Your task to perform on an android device: Go to Android settings Image 0: 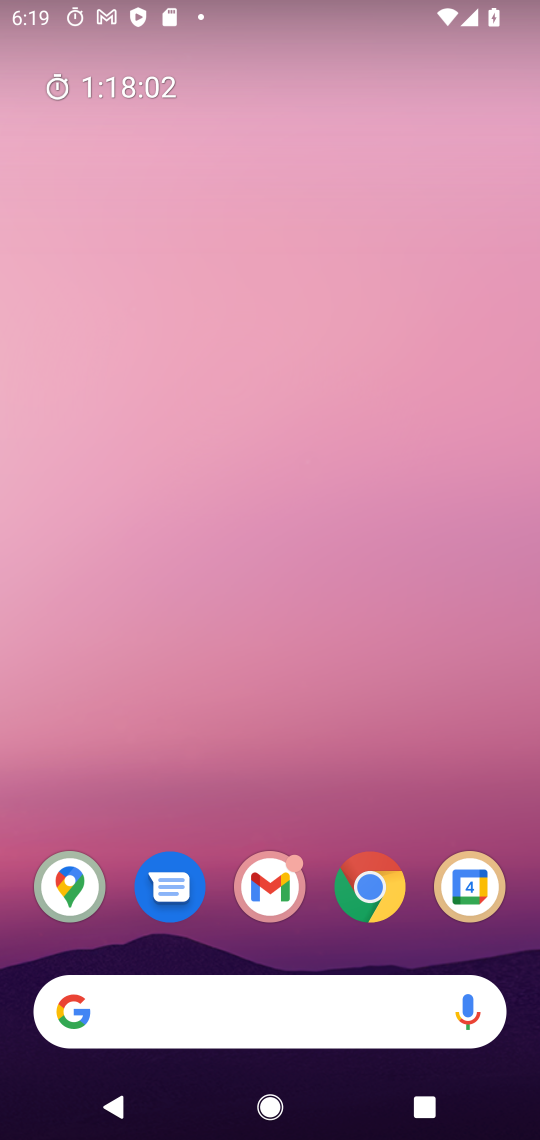
Step 0: drag from (513, 1062) to (452, 87)
Your task to perform on an android device: Go to Android settings Image 1: 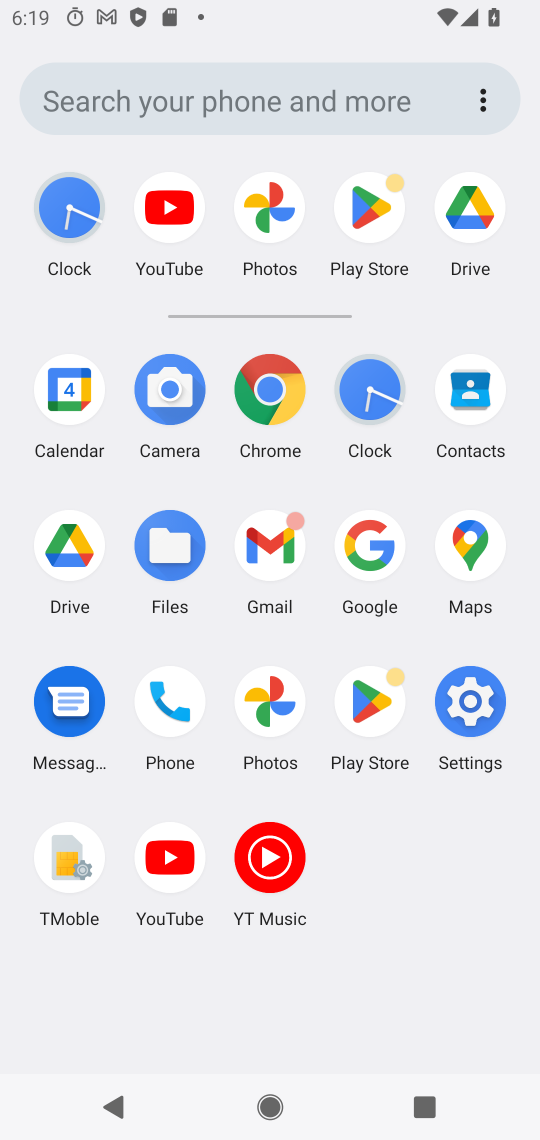
Step 1: click (469, 700)
Your task to perform on an android device: Go to Android settings Image 2: 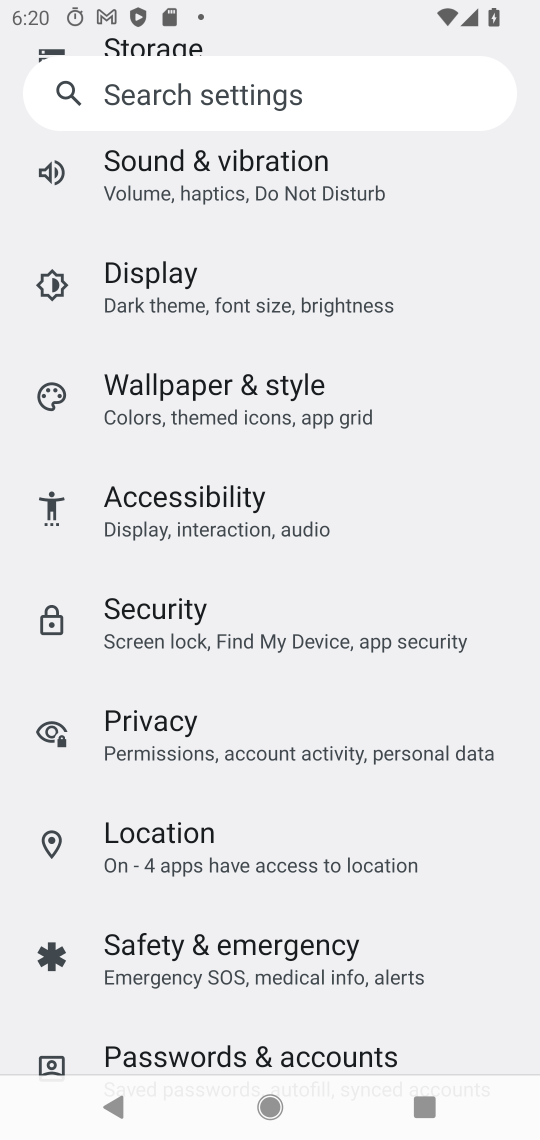
Step 2: task complete